Your task to perform on an android device: see tabs open on other devices in the chrome app Image 0: 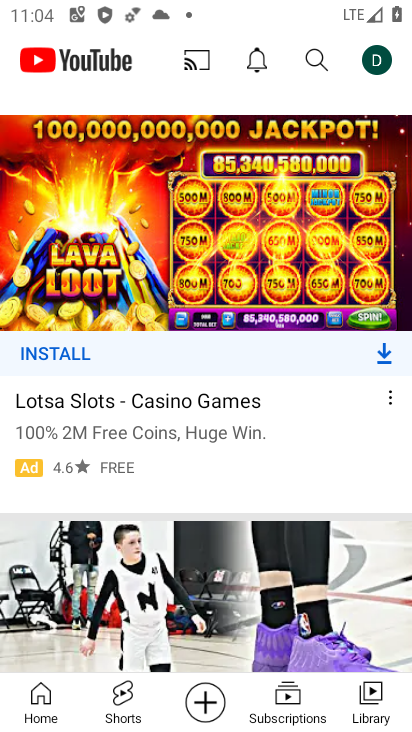
Step 0: press home button
Your task to perform on an android device: see tabs open on other devices in the chrome app Image 1: 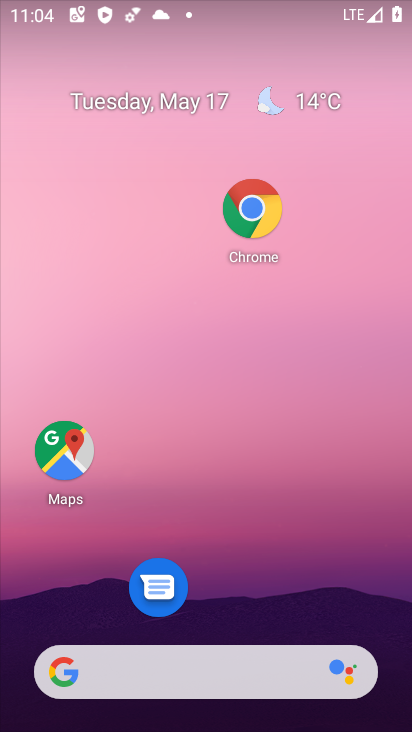
Step 1: click (254, 199)
Your task to perform on an android device: see tabs open on other devices in the chrome app Image 2: 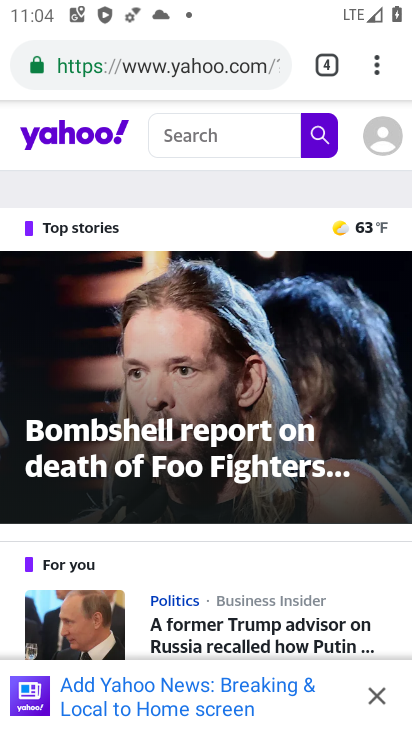
Step 2: click (387, 74)
Your task to perform on an android device: see tabs open on other devices in the chrome app Image 3: 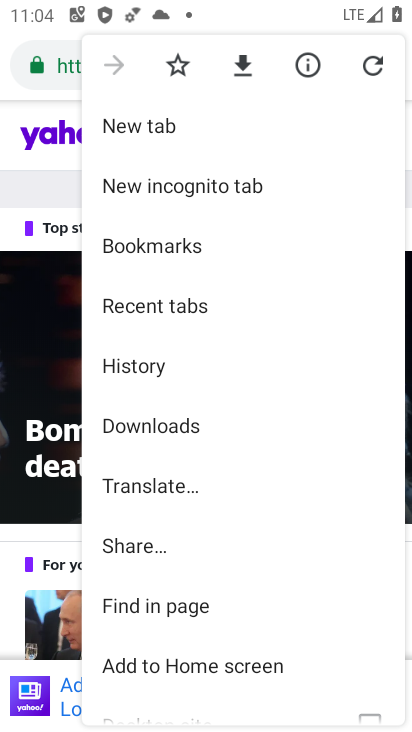
Step 3: click (173, 302)
Your task to perform on an android device: see tabs open on other devices in the chrome app Image 4: 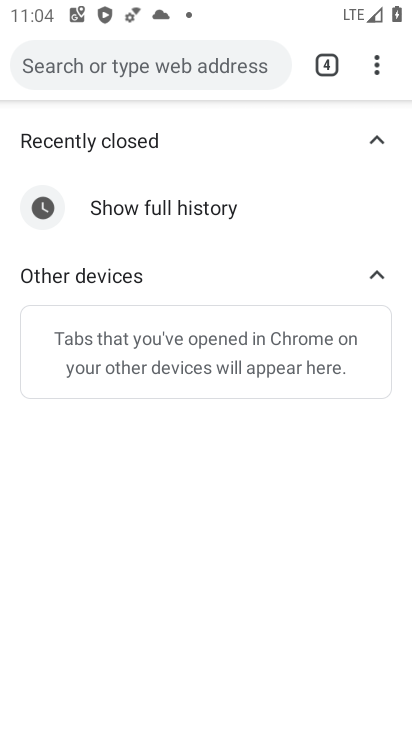
Step 4: task complete